Your task to perform on an android device: see creations saved in the google photos Image 0: 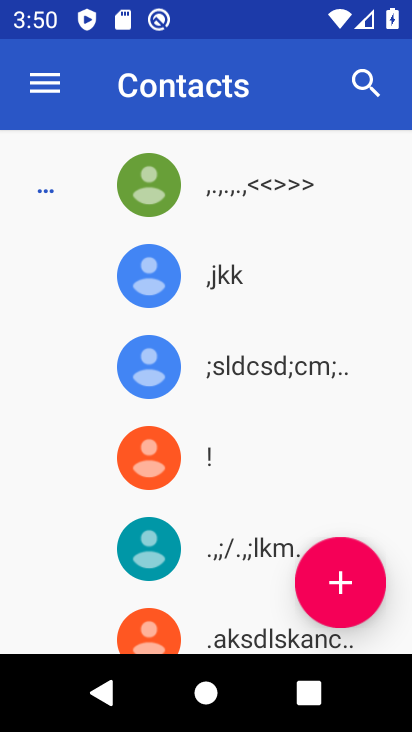
Step 0: press home button
Your task to perform on an android device: see creations saved in the google photos Image 1: 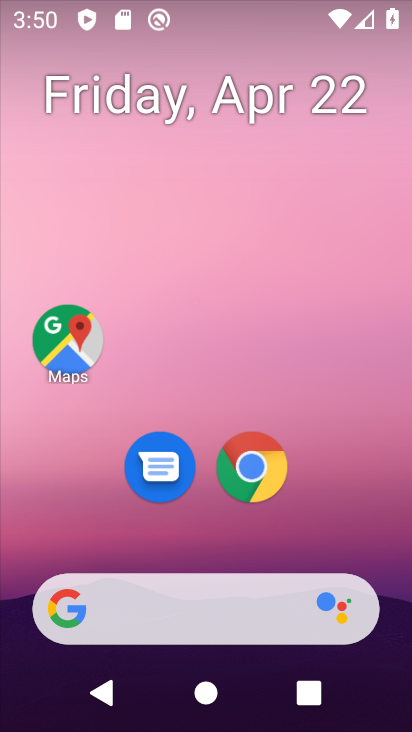
Step 1: drag from (196, 547) to (176, 23)
Your task to perform on an android device: see creations saved in the google photos Image 2: 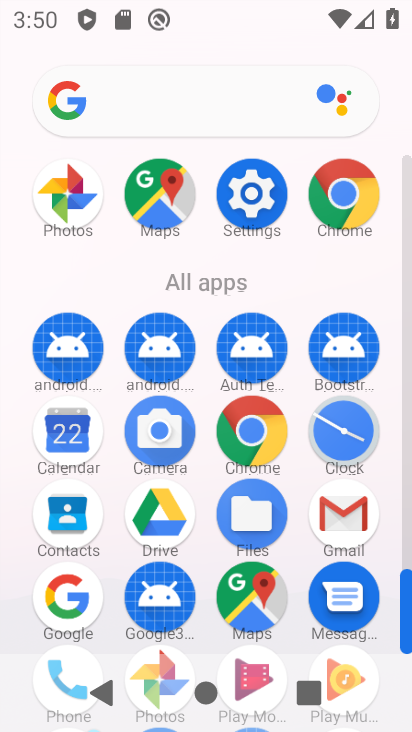
Step 2: drag from (191, 528) to (187, 204)
Your task to perform on an android device: see creations saved in the google photos Image 3: 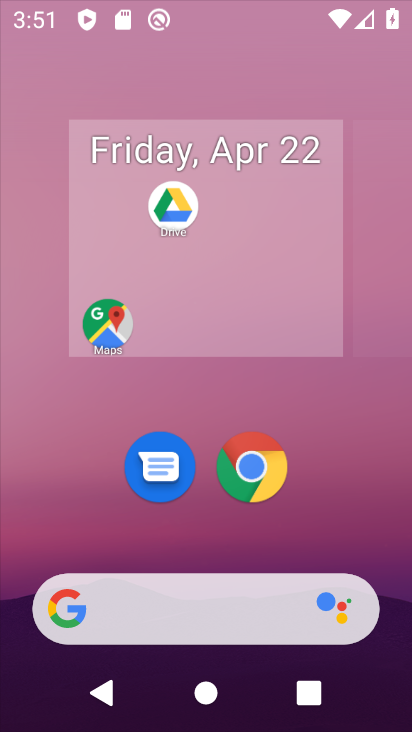
Step 3: click (381, 476)
Your task to perform on an android device: see creations saved in the google photos Image 4: 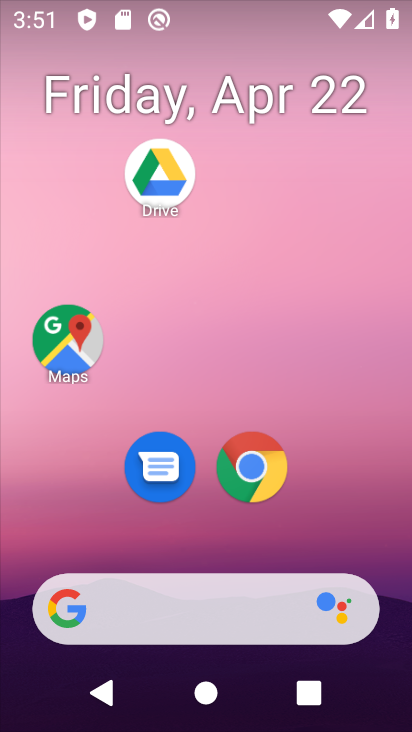
Step 4: click (232, 83)
Your task to perform on an android device: see creations saved in the google photos Image 5: 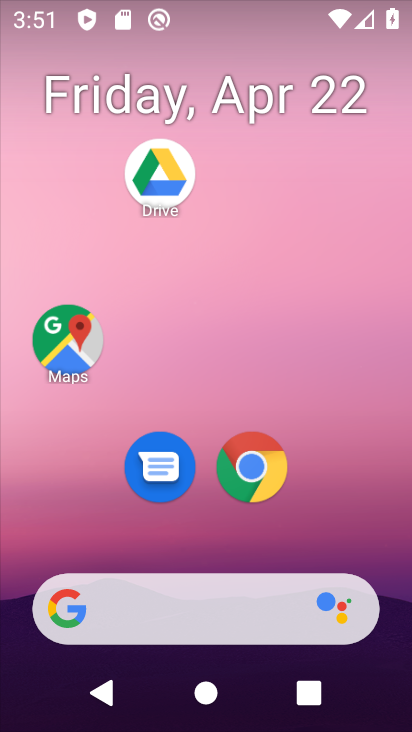
Step 5: drag from (200, 539) to (201, 99)
Your task to perform on an android device: see creations saved in the google photos Image 6: 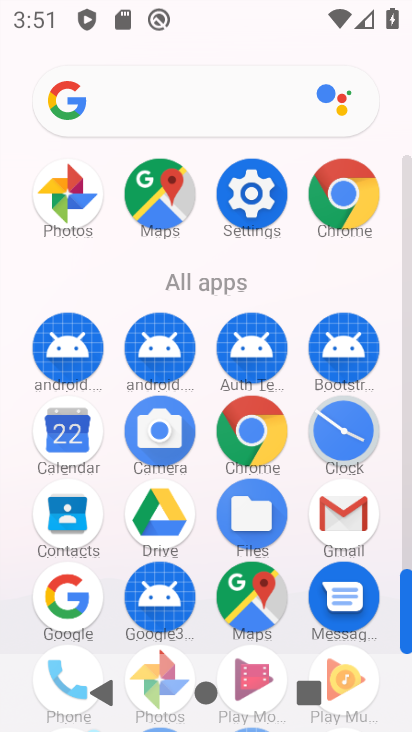
Step 6: click (66, 189)
Your task to perform on an android device: see creations saved in the google photos Image 7: 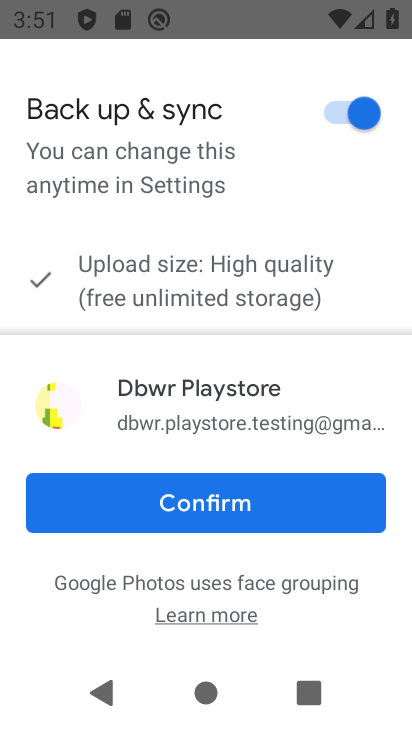
Step 7: click (209, 499)
Your task to perform on an android device: see creations saved in the google photos Image 8: 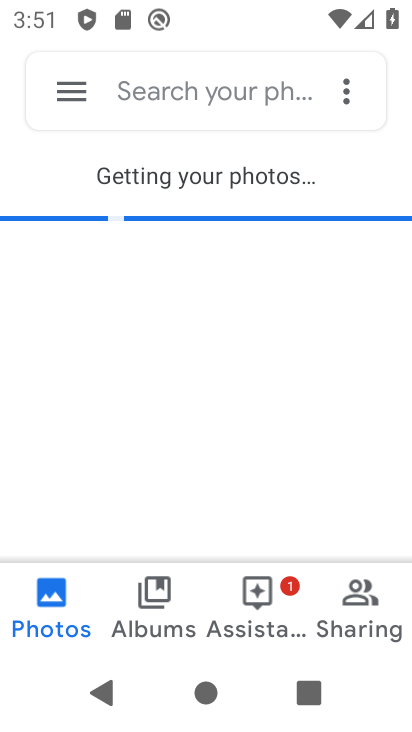
Step 8: click (67, 80)
Your task to perform on an android device: see creations saved in the google photos Image 9: 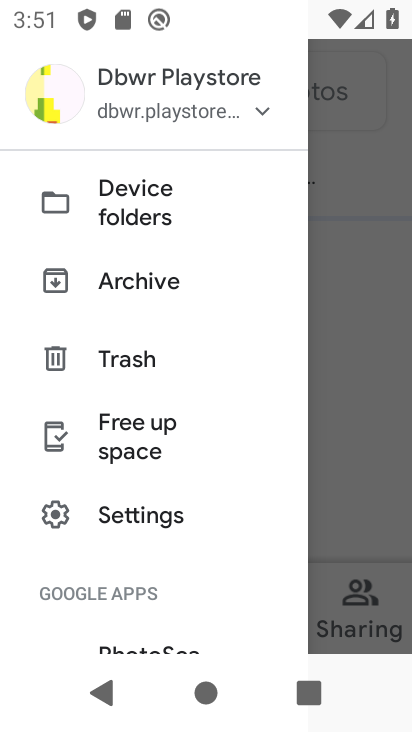
Step 9: click (373, 476)
Your task to perform on an android device: see creations saved in the google photos Image 10: 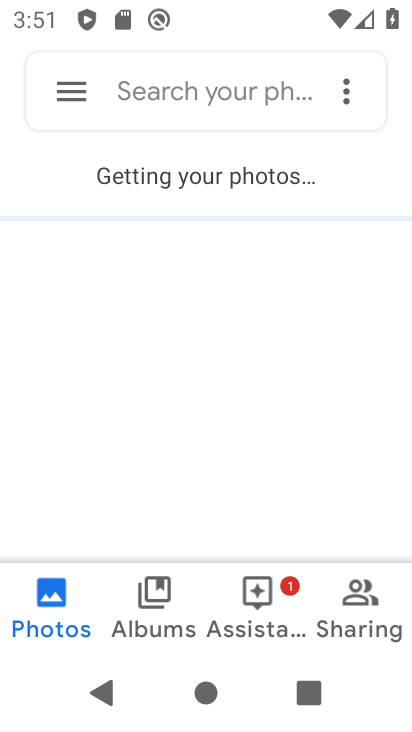
Step 10: click (150, 88)
Your task to perform on an android device: see creations saved in the google photos Image 11: 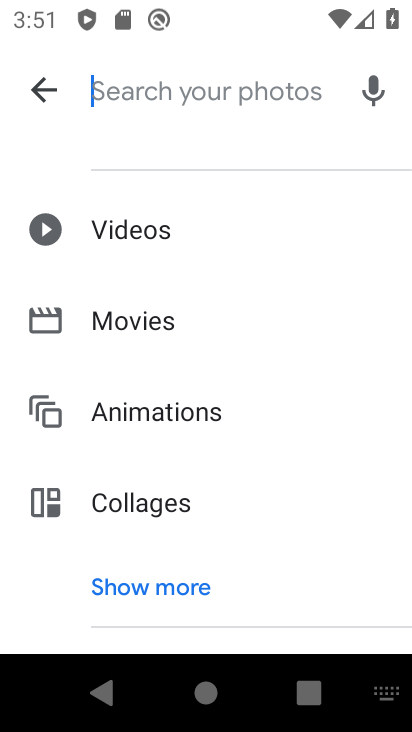
Step 11: click (129, 585)
Your task to perform on an android device: see creations saved in the google photos Image 12: 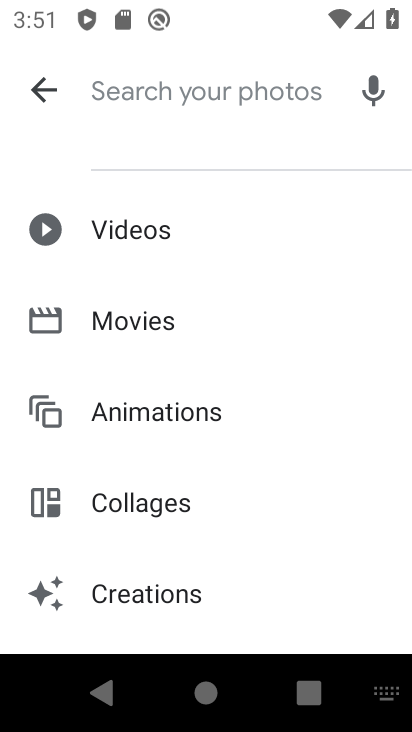
Step 12: click (128, 585)
Your task to perform on an android device: see creations saved in the google photos Image 13: 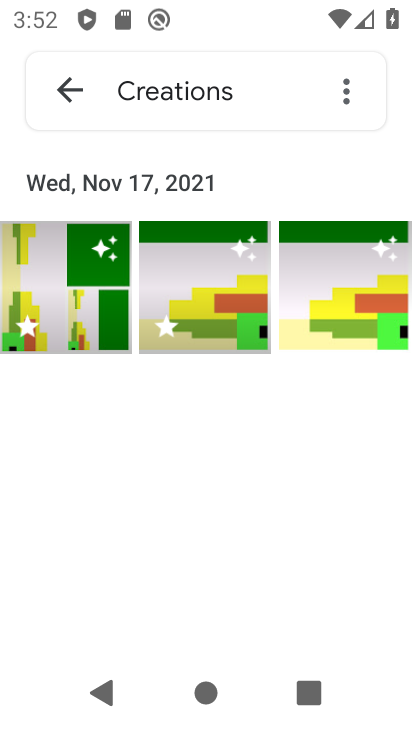
Step 13: task complete